Your task to perform on an android device: open app "Microsoft Authenticator" Image 0: 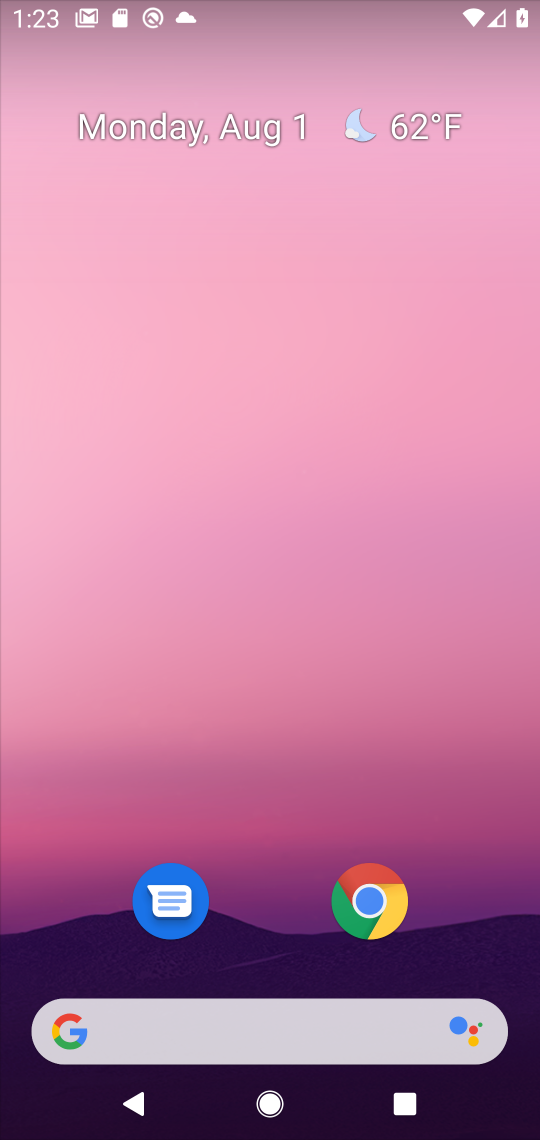
Step 0: drag from (276, 1019) to (437, 178)
Your task to perform on an android device: open app "Microsoft Authenticator" Image 1: 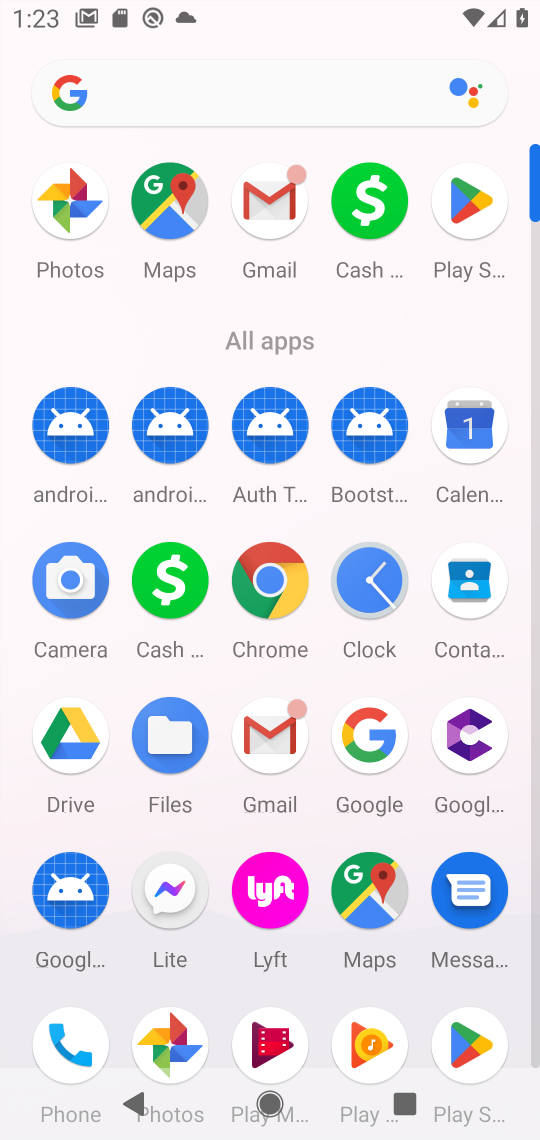
Step 1: click (469, 1046)
Your task to perform on an android device: open app "Microsoft Authenticator" Image 2: 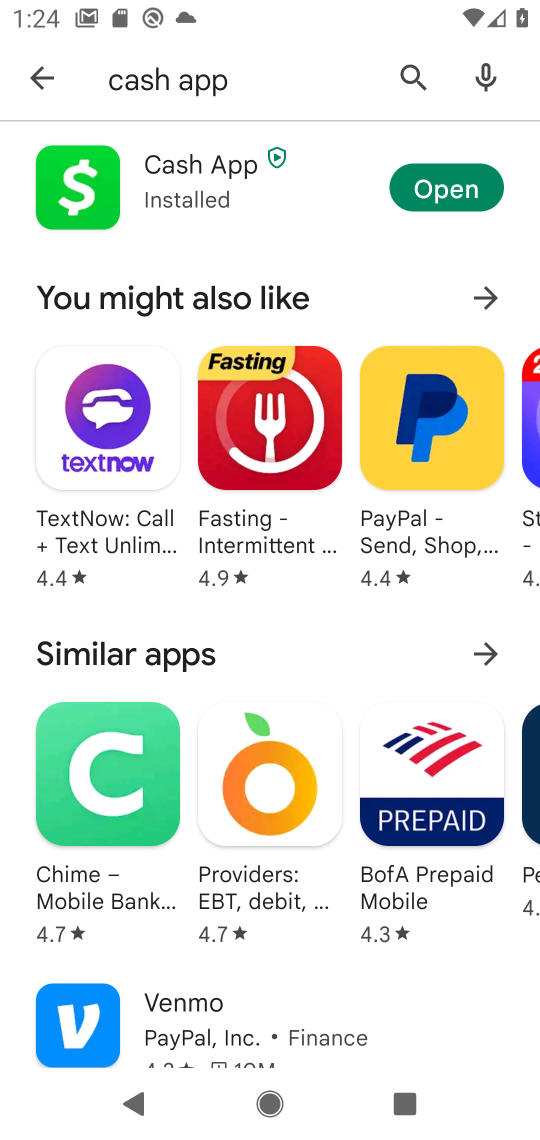
Step 2: click (416, 85)
Your task to perform on an android device: open app "Microsoft Authenticator" Image 3: 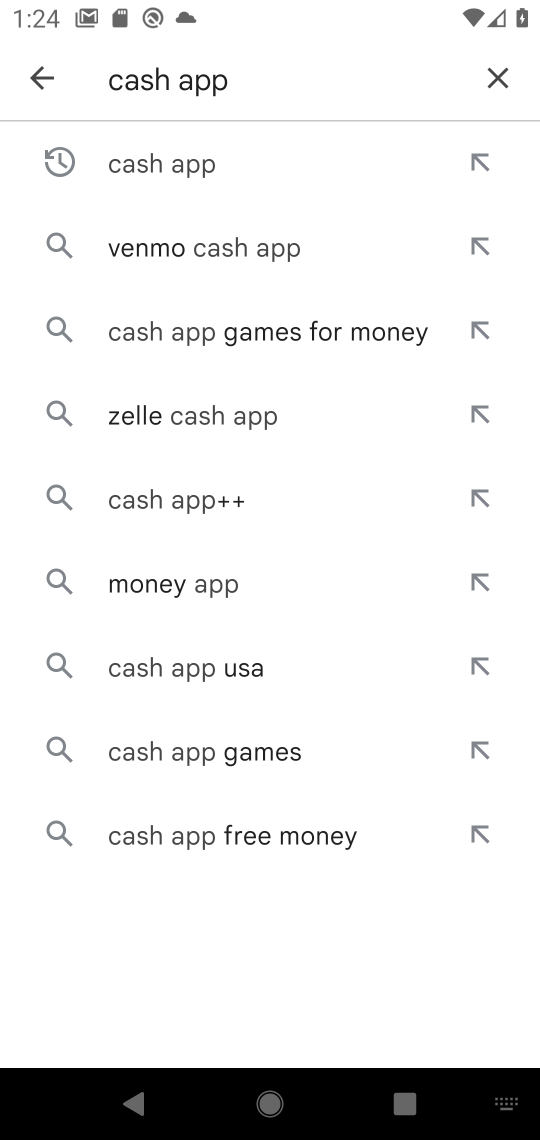
Step 3: click (490, 90)
Your task to perform on an android device: open app "Microsoft Authenticator" Image 4: 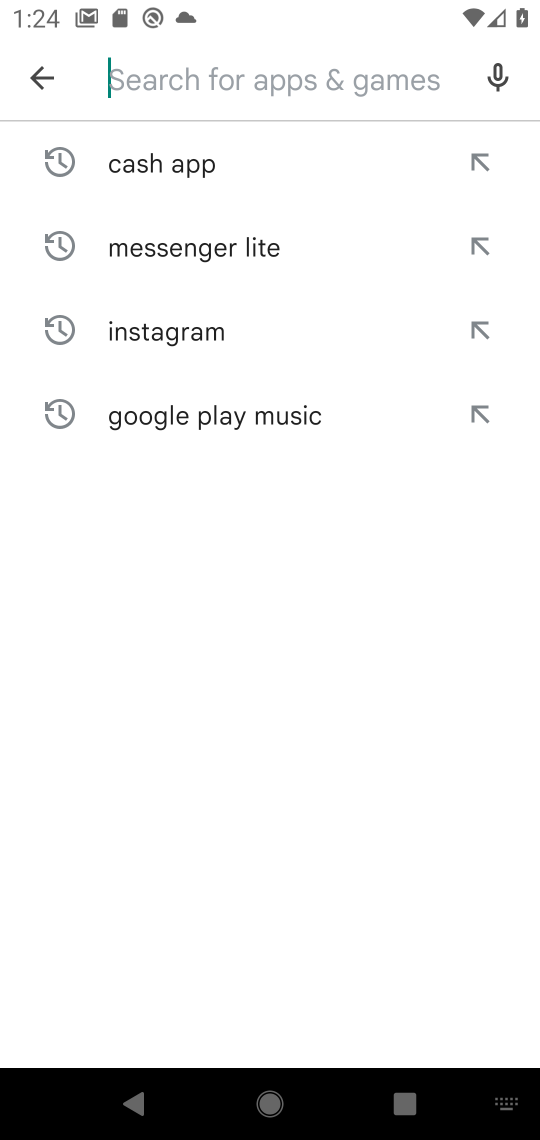
Step 4: type "Microsoft Authenticator"
Your task to perform on an android device: open app "Microsoft Authenticator" Image 5: 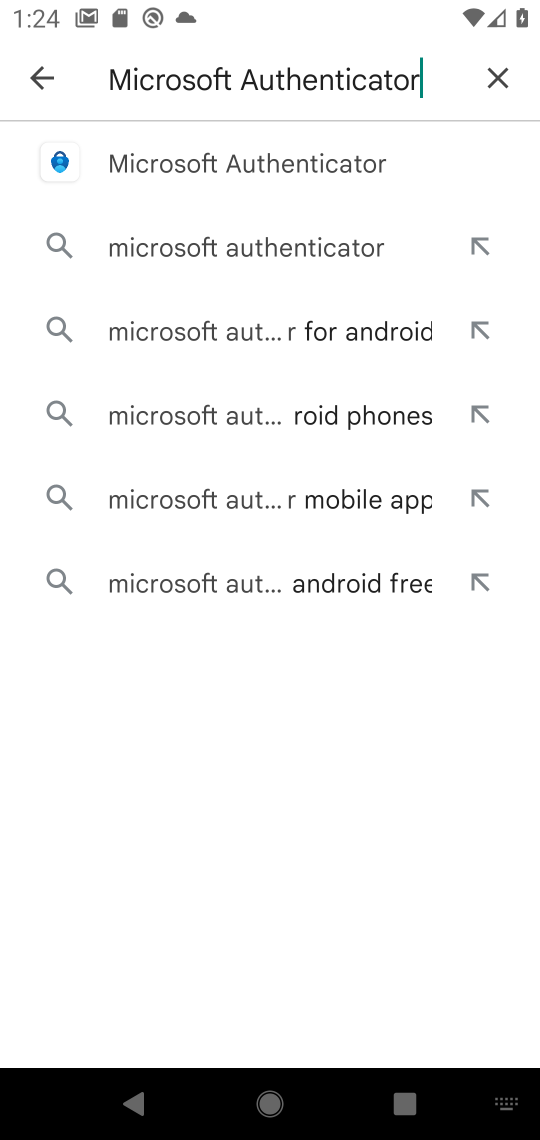
Step 5: click (359, 147)
Your task to perform on an android device: open app "Microsoft Authenticator" Image 6: 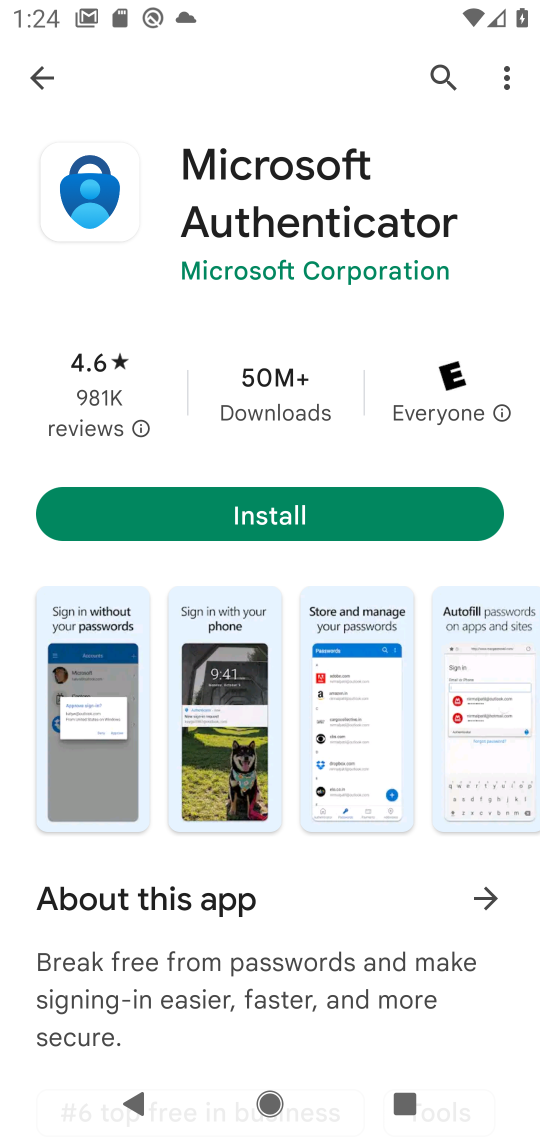
Step 6: task complete